Your task to perform on an android device: turn on javascript in the chrome app Image 0: 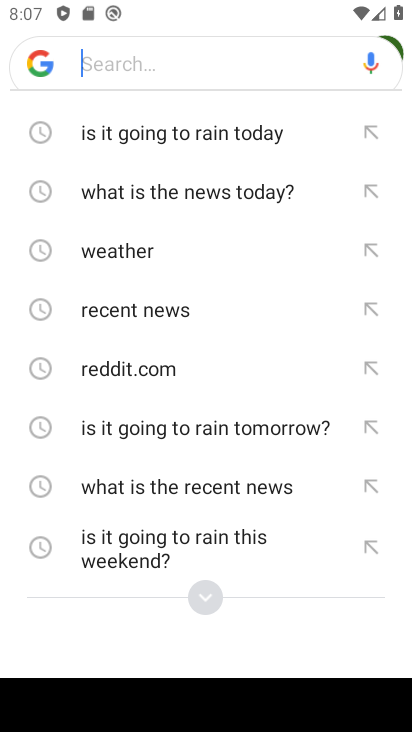
Step 0: press home button
Your task to perform on an android device: turn on javascript in the chrome app Image 1: 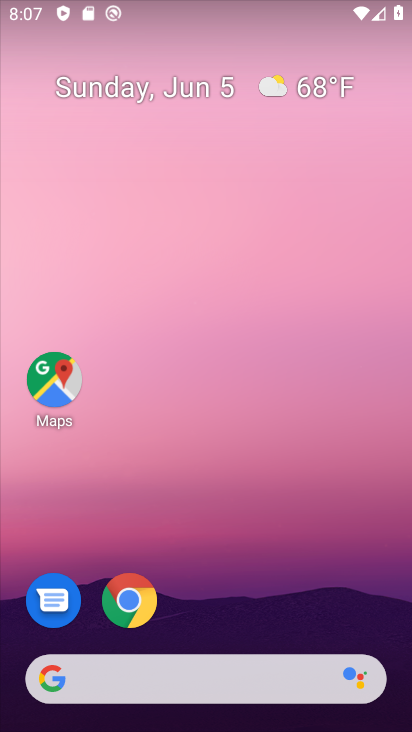
Step 1: click (123, 597)
Your task to perform on an android device: turn on javascript in the chrome app Image 2: 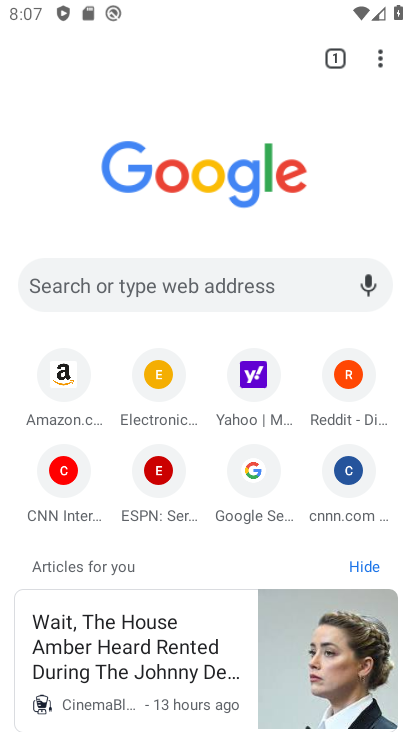
Step 2: click (386, 57)
Your task to perform on an android device: turn on javascript in the chrome app Image 3: 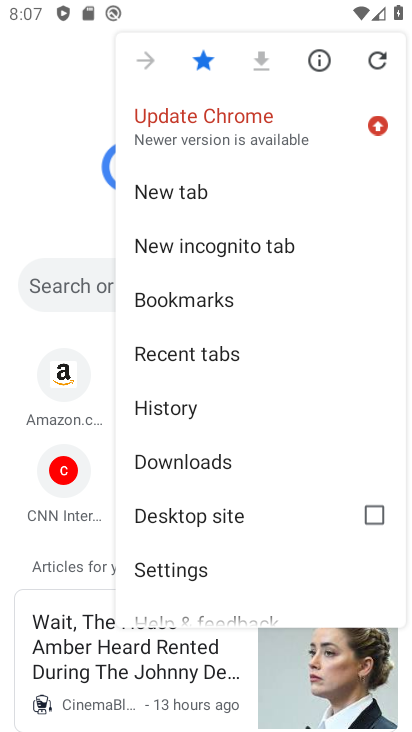
Step 3: click (177, 561)
Your task to perform on an android device: turn on javascript in the chrome app Image 4: 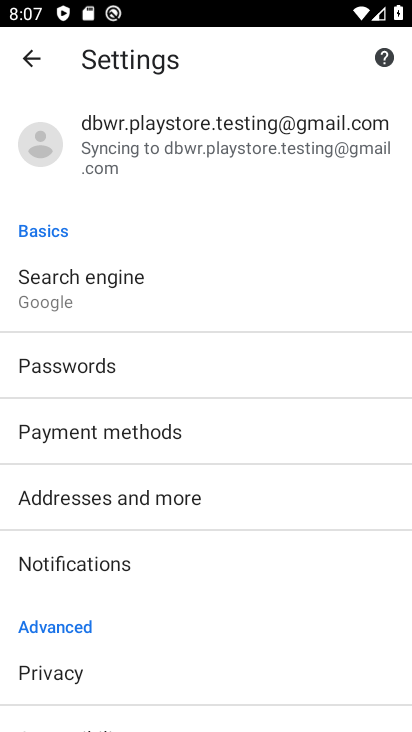
Step 4: drag from (156, 662) to (160, 186)
Your task to perform on an android device: turn on javascript in the chrome app Image 5: 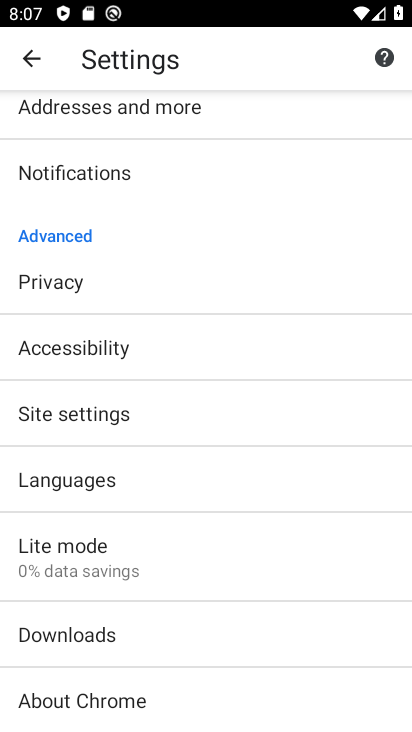
Step 5: click (128, 411)
Your task to perform on an android device: turn on javascript in the chrome app Image 6: 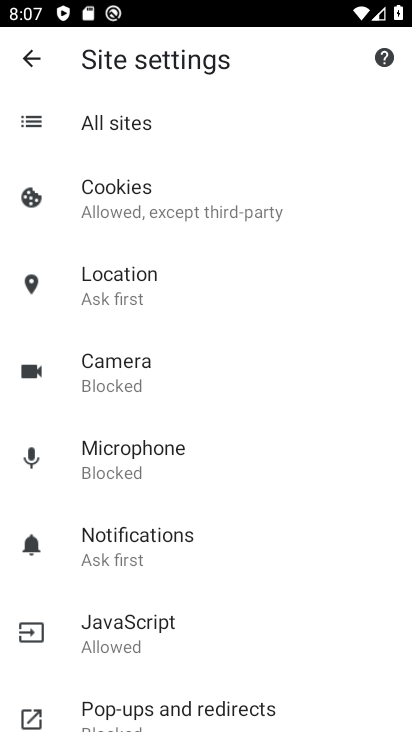
Step 6: click (163, 635)
Your task to perform on an android device: turn on javascript in the chrome app Image 7: 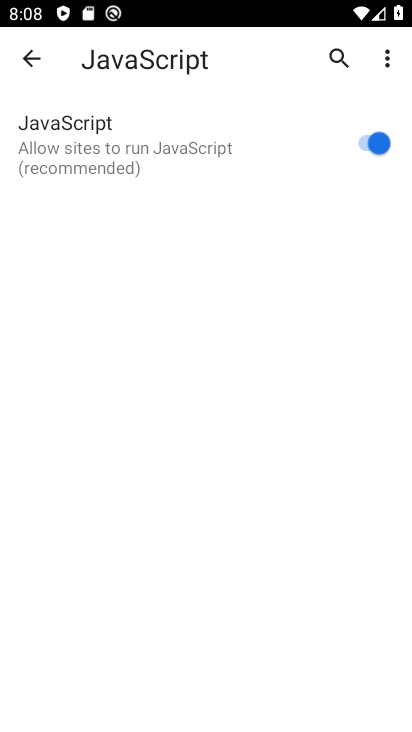
Step 7: task complete